Your task to perform on an android device: Open display settings Image 0: 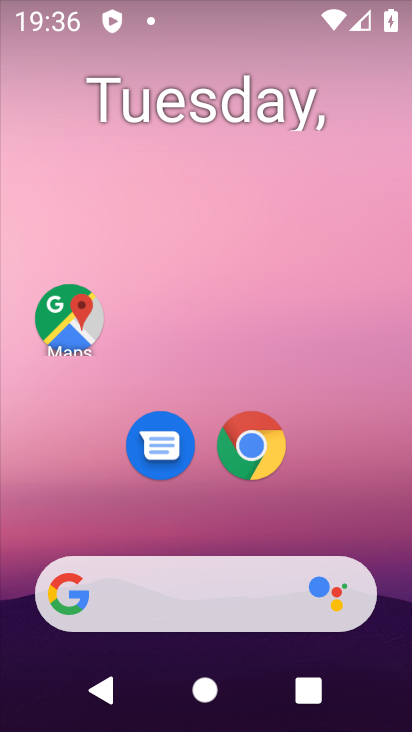
Step 0: drag from (241, 537) to (200, 6)
Your task to perform on an android device: Open display settings Image 1: 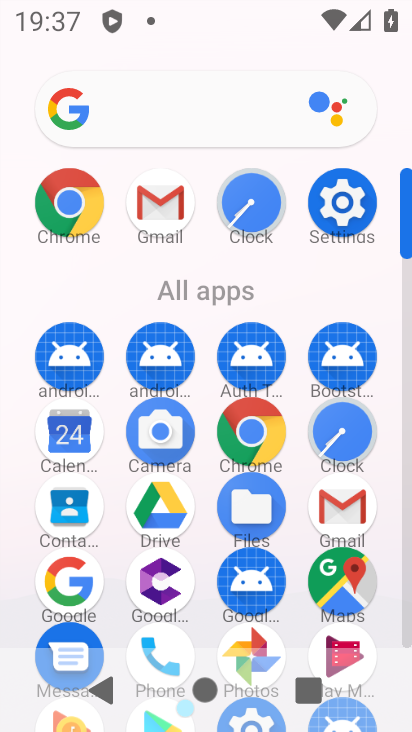
Step 1: click (348, 213)
Your task to perform on an android device: Open display settings Image 2: 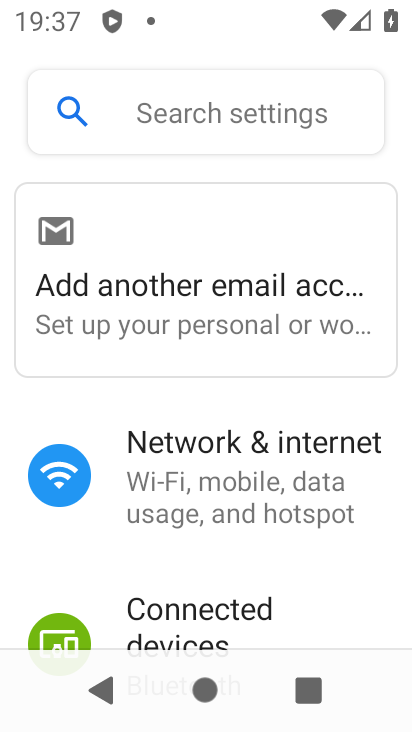
Step 2: drag from (228, 562) to (211, 14)
Your task to perform on an android device: Open display settings Image 3: 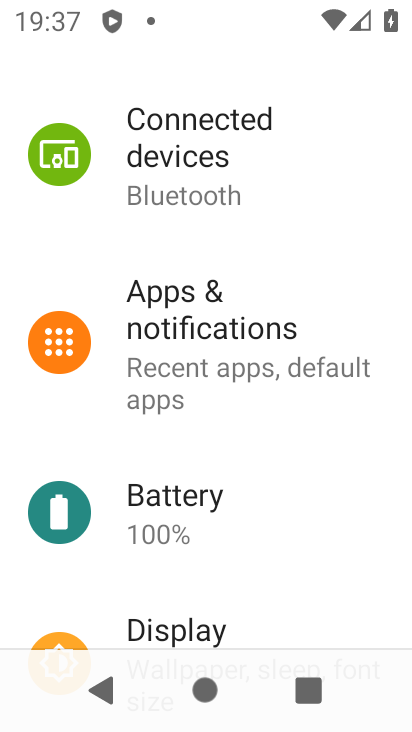
Step 3: click (206, 616)
Your task to perform on an android device: Open display settings Image 4: 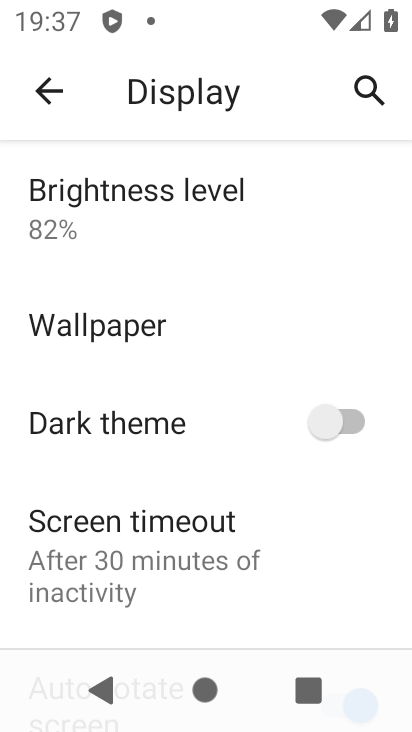
Step 4: task complete